Your task to perform on an android device: choose inbox layout in the gmail app Image 0: 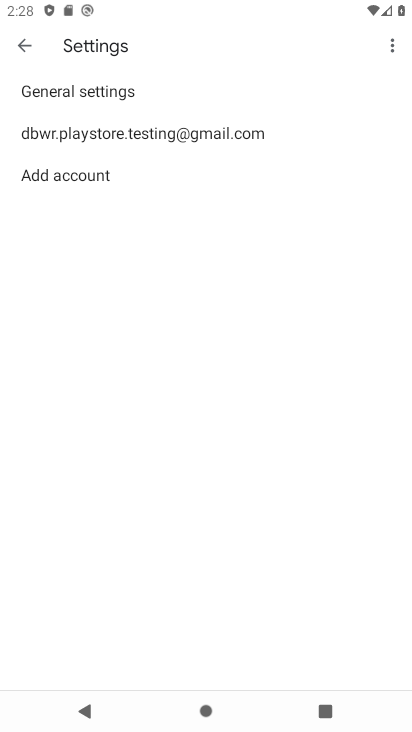
Step 0: press home button
Your task to perform on an android device: choose inbox layout in the gmail app Image 1: 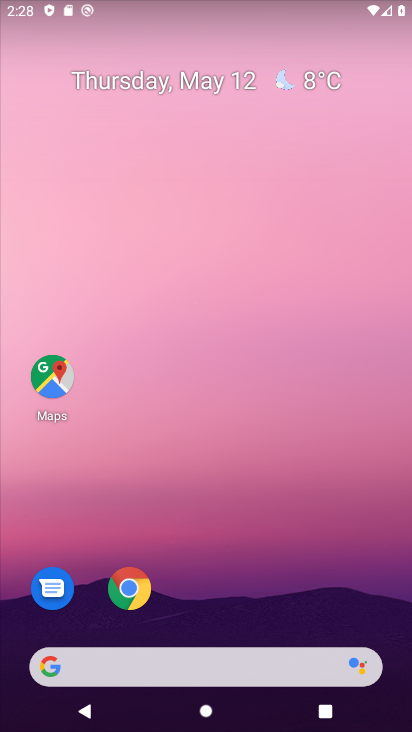
Step 1: drag from (241, 636) to (179, 329)
Your task to perform on an android device: choose inbox layout in the gmail app Image 2: 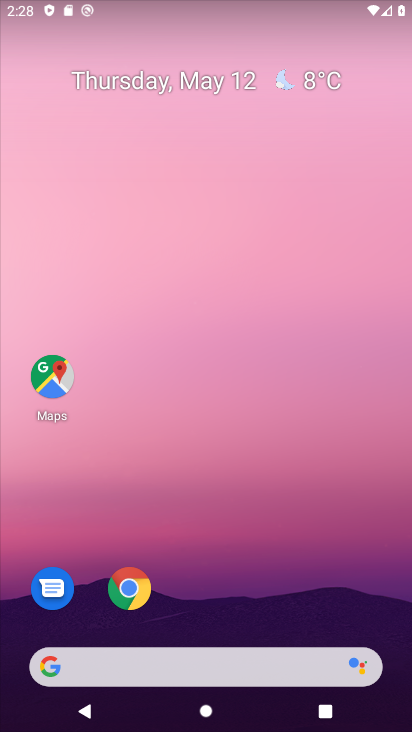
Step 2: drag from (232, 586) to (193, 194)
Your task to perform on an android device: choose inbox layout in the gmail app Image 3: 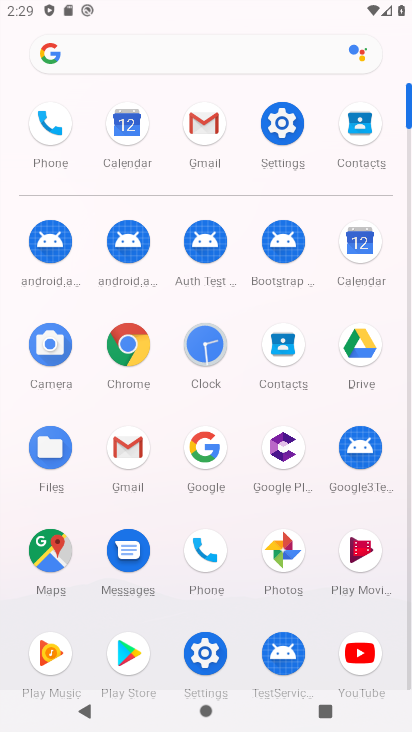
Step 3: click (290, 135)
Your task to perform on an android device: choose inbox layout in the gmail app Image 4: 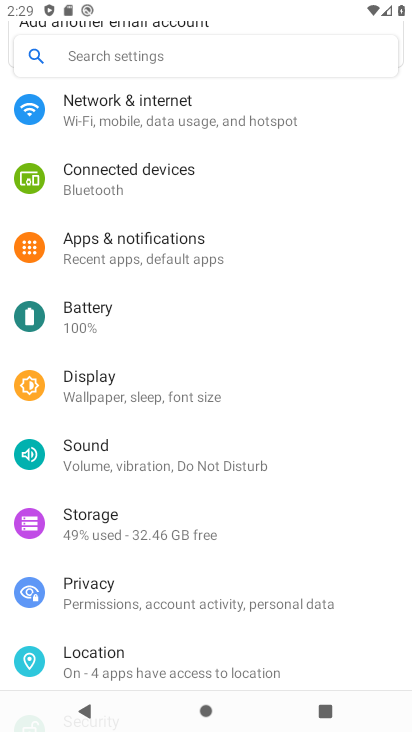
Step 4: press home button
Your task to perform on an android device: choose inbox layout in the gmail app Image 5: 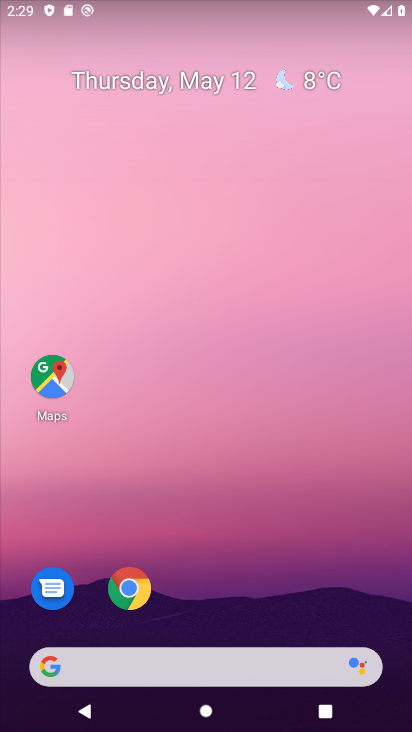
Step 5: drag from (343, 594) to (322, 393)
Your task to perform on an android device: choose inbox layout in the gmail app Image 6: 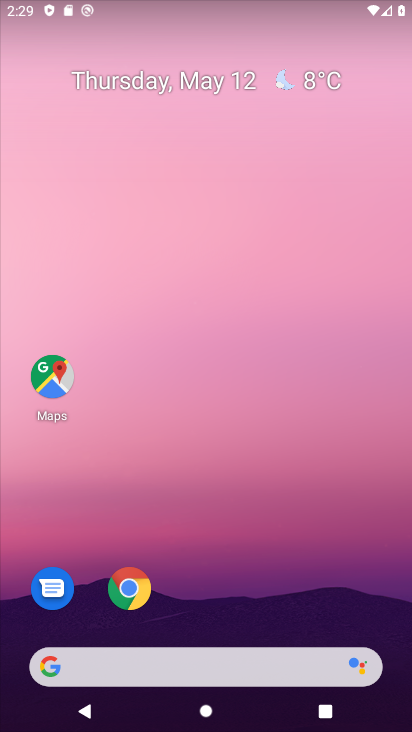
Step 6: drag from (273, 569) to (243, 196)
Your task to perform on an android device: choose inbox layout in the gmail app Image 7: 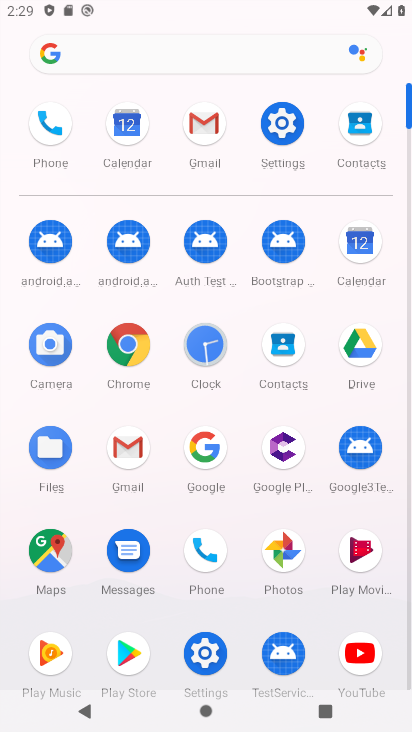
Step 7: click (140, 460)
Your task to perform on an android device: choose inbox layout in the gmail app Image 8: 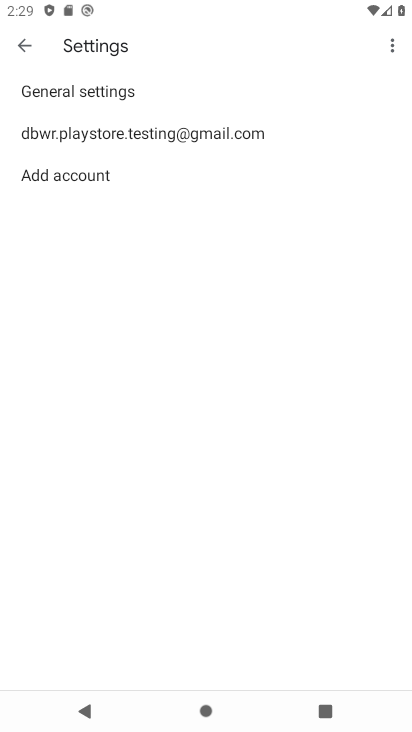
Step 8: click (21, 42)
Your task to perform on an android device: choose inbox layout in the gmail app Image 9: 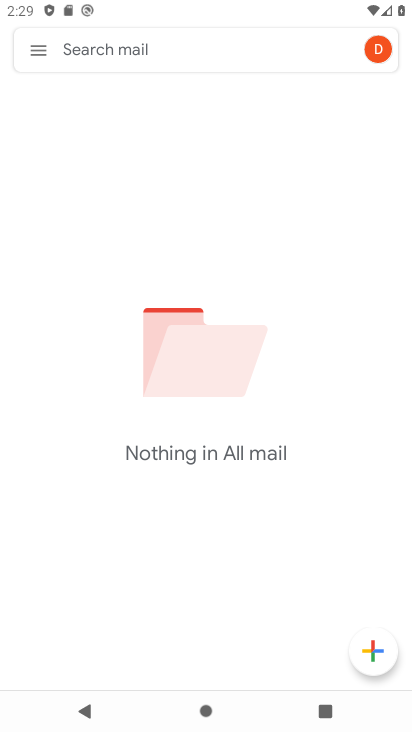
Step 9: click (41, 55)
Your task to perform on an android device: choose inbox layout in the gmail app Image 10: 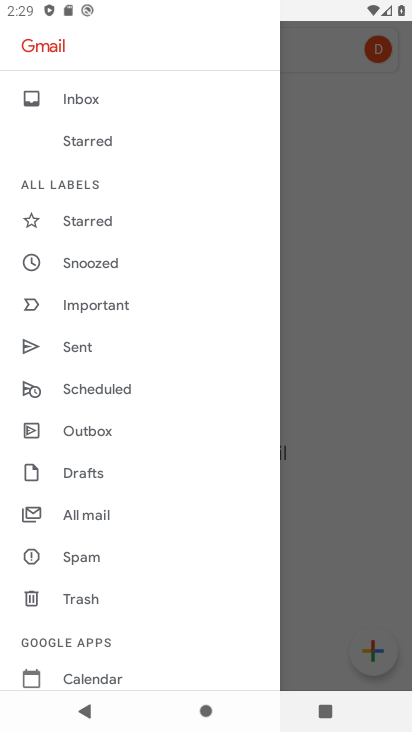
Step 10: click (109, 499)
Your task to perform on an android device: choose inbox layout in the gmail app Image 11: 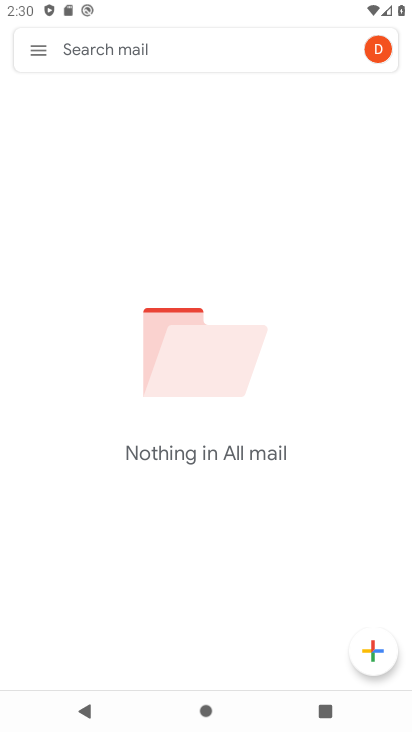
Step 11: click (38, 41)
Your task to perform on an android device: choose inbox layout in the gmail app Image 12: 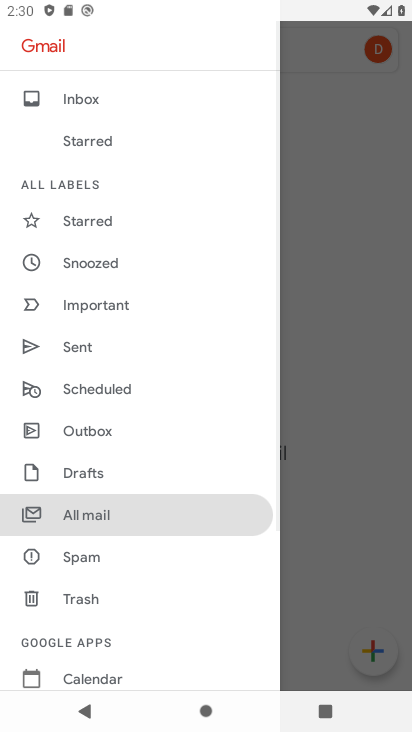
Step 12: click (80, 110)
Your task to perform on an android device: choose inbox layout in the gmail app Image 13: 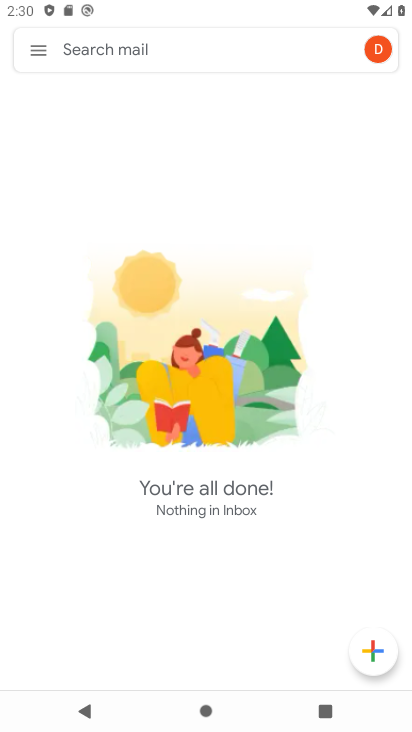
Step 13: task complete